Your task to perform on an android device: Open Google Maps Image 0: 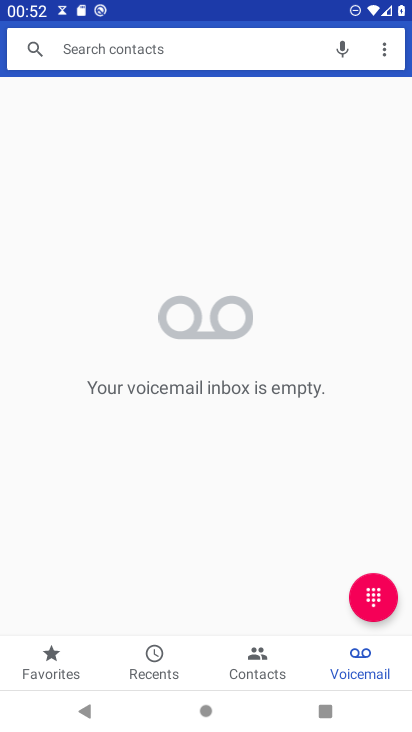
Step 0: press home button
Your task to perform on an android device: Open Google Maps Image 1: 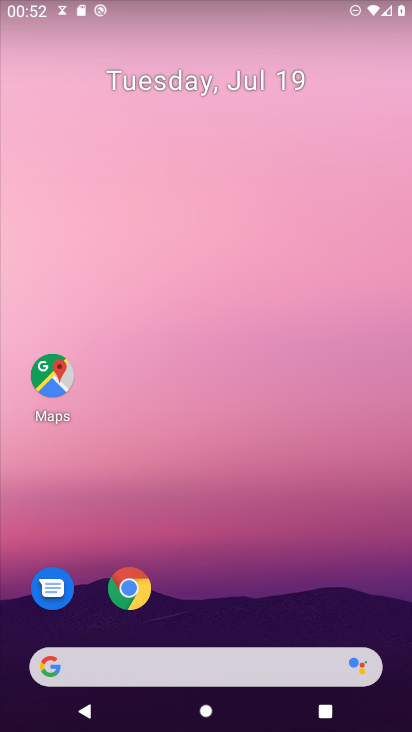
Step 1: click (57, 371)
Your task to perform on an android device: Open Google Maps Image 2: 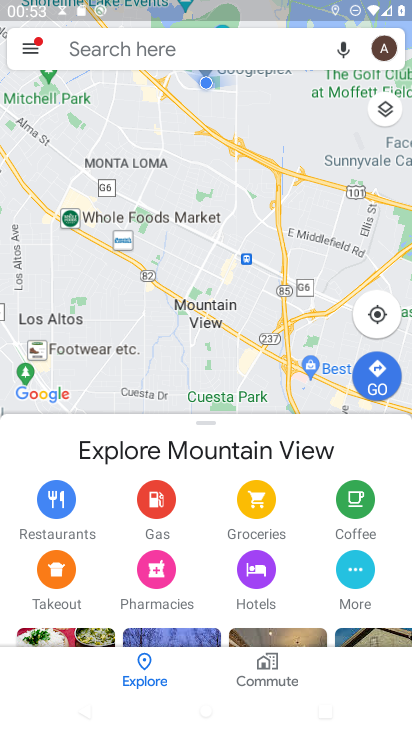
Step 2: task complete